Your task to perform on an android device: remove spam from my inbox in the gmail app Image 0: 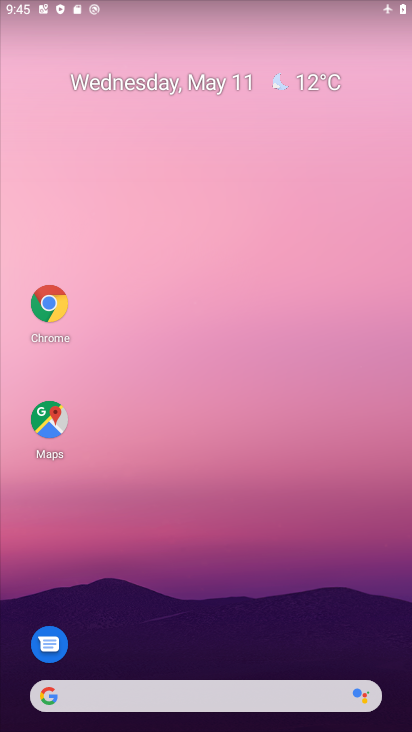
Step 0: press home button
Your task to perform on an android device: remove spam from my inbox in the gmail app Image 1: 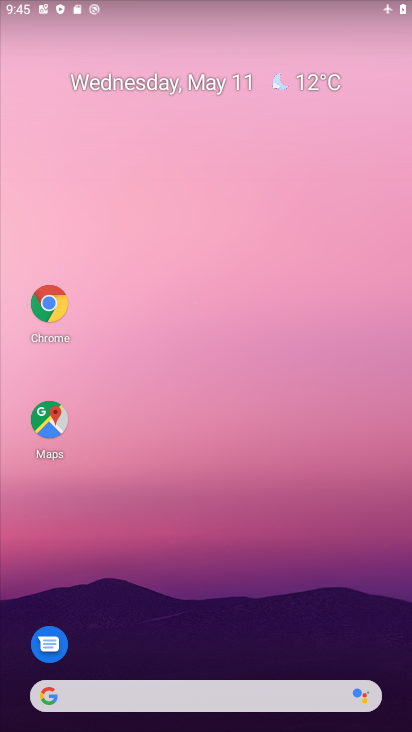
Step 1: drag from (217, 658) to (177, 226)
Your task to perform on an android device: remove spam from my inbox in the gmail app Image 2: 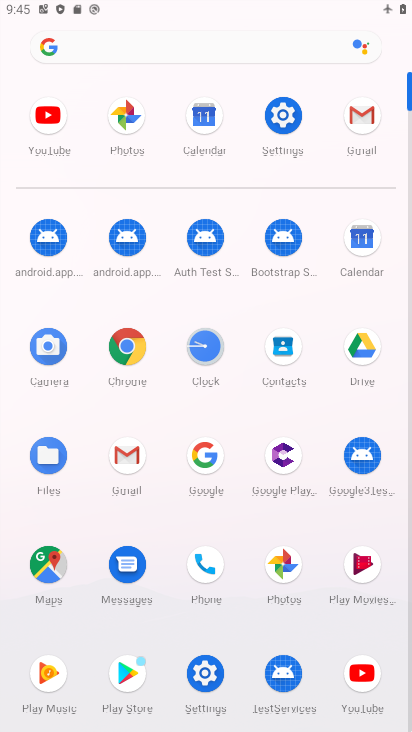
Step 2: click (366, 127)
Your task to perform on an android device: remove spam from my inbox in the gmail app Image 3: 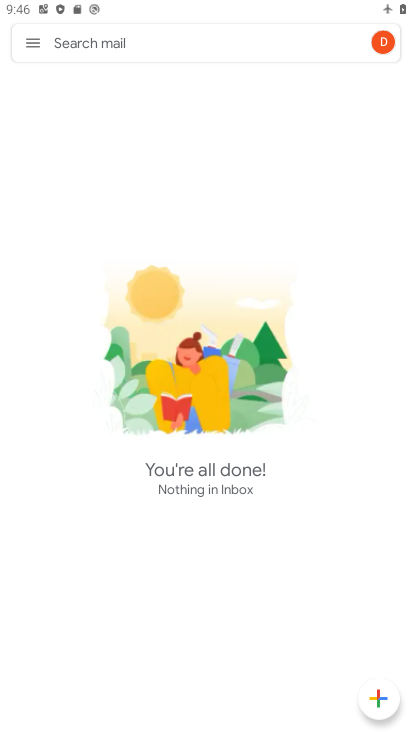
Step 3: click (33, 46)
Your task to perform on an android device: remove spam from my inbox in the gmail app Image 4: 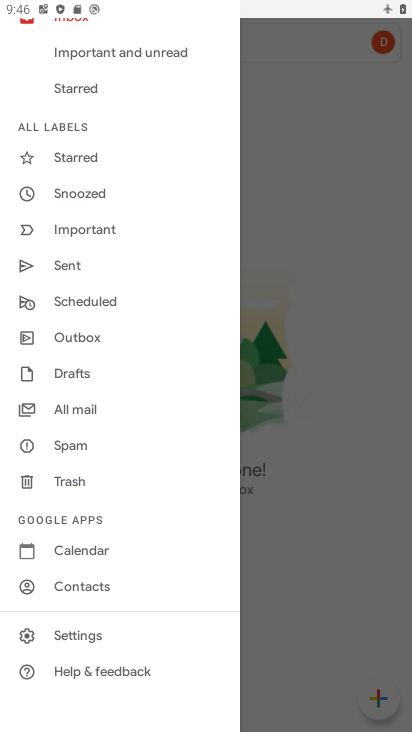
Step 4: drag from (71, 87) to (96, 283)
Your task to perform on an android device: remove spam from my inbox in the gmail app Image 5: 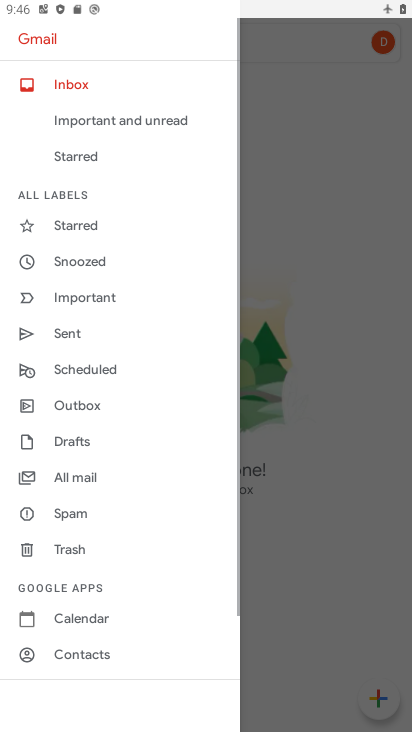
Step 5: click (277, 199)
Your task to perform on an android device: remove spam from my inbox in the gmail app Image 6: 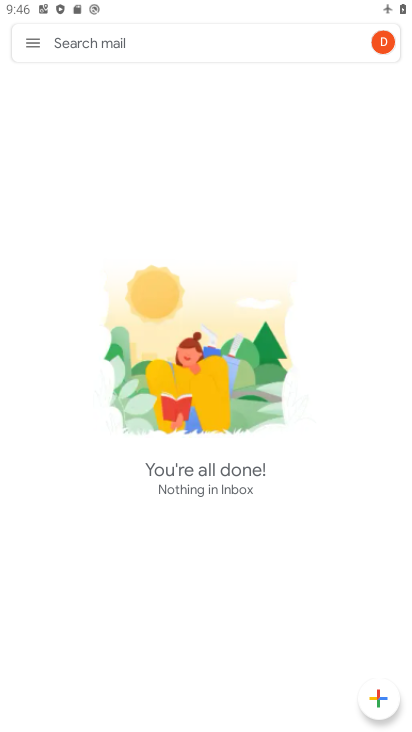
Step 6: task complete